Your task to perform on an android device: Open Amazon Image 0: 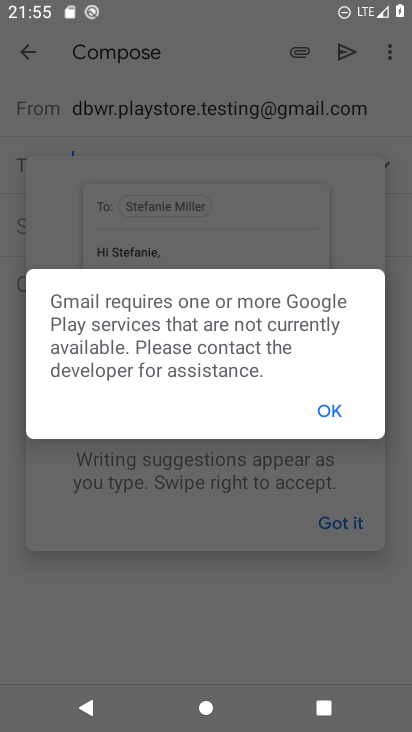
Step 0: press home button
Your task to perform on an android device: Open Amazon Image 1: 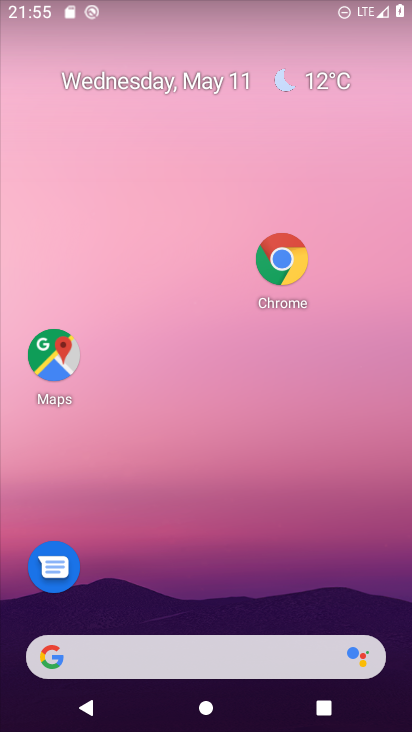
Step 1: click (276, 260)
Your task to perform on an android device: Open Amazon Image 2: 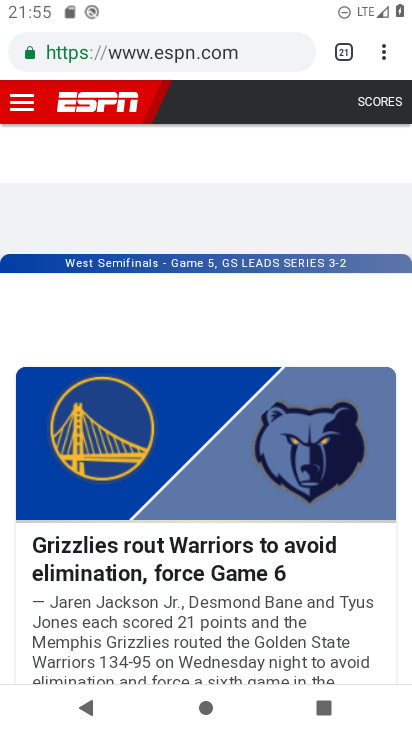
Step 2: drag from (384, 57) to (322, 100)
Your task to perform on an android device: Open Amazon Image 3: 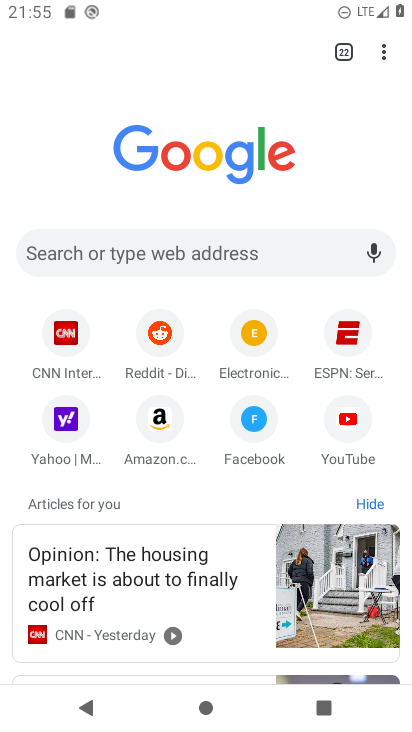
Step 3: click (162, 426)
Your task to perform on an android device: Open Amazon Image 4: 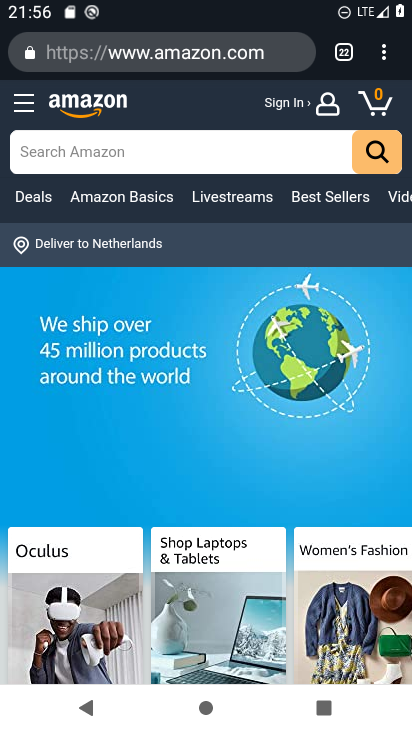
Step 4: task complete